Your task to perform on an android device: Open Google Chrome and click the shortcut for Amazon.com Image 0: 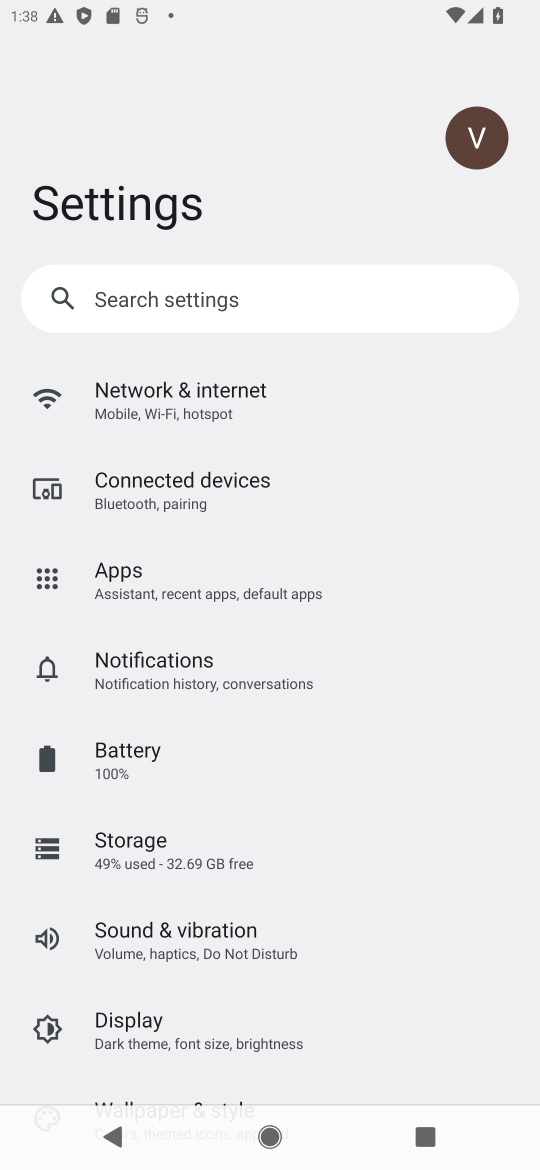
Step 0: press home button
Your task to perform on an android device: Open Google Chrome and click the shortcut for Amazon.com Image 1: 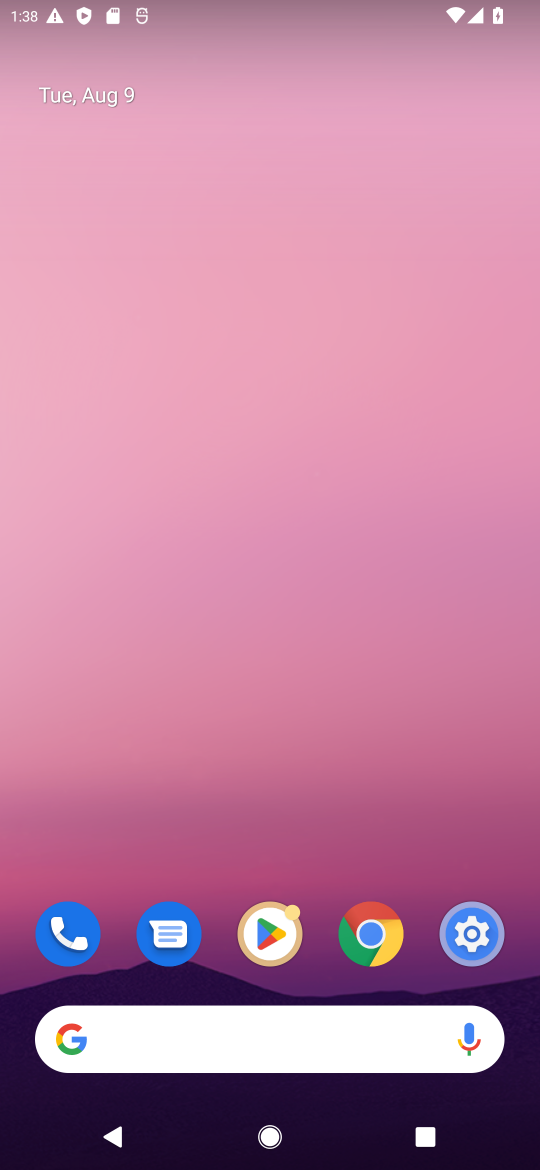
Step 1: click (394, 934)
Your task to perform on an android device: Open Google Chrome and click the shortcut for Amazon.com Image 2: 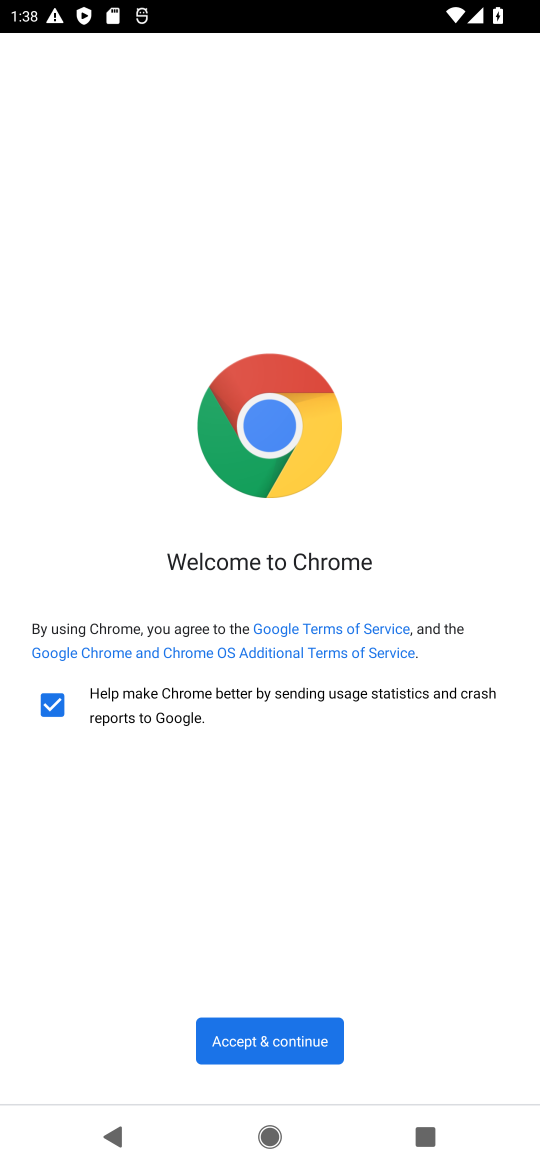
Step 2: click (325, 1038)
Your task to perform on an android device: Open Google Chrome and click the shortcut for Amazon.com Image 3: 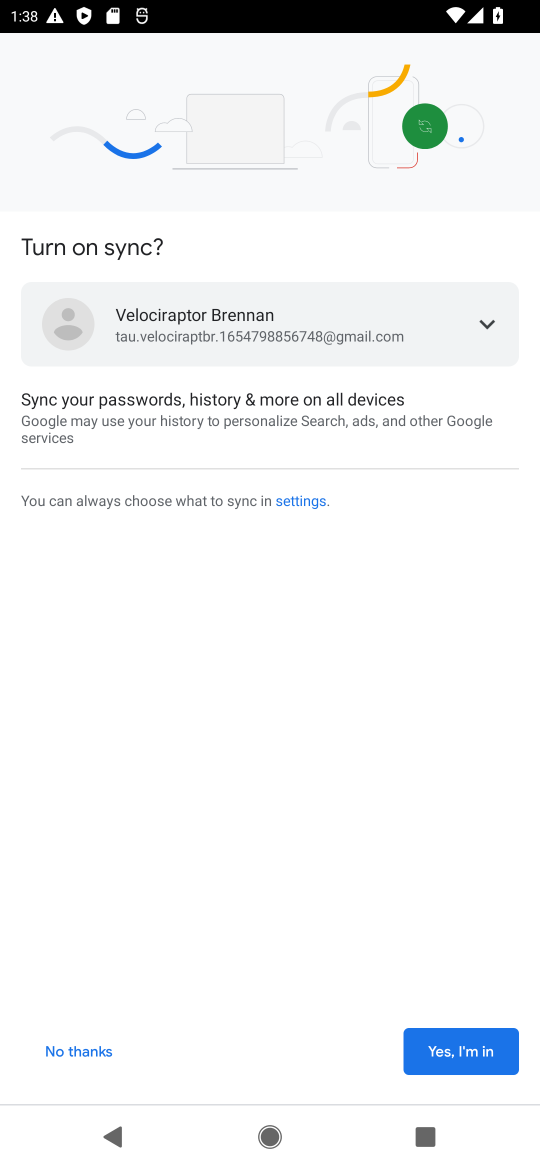
Step 3: click (476, 1044)
Your task to perform on an android device: Open Google Chrome and click the shortcut for Amazon.com Image 4: 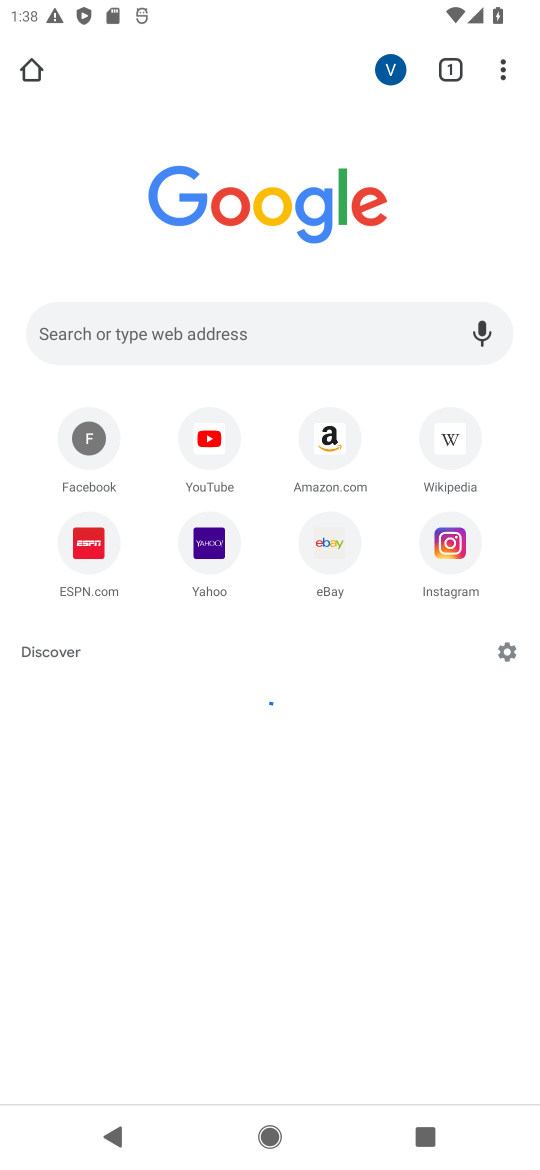
Step 4: click (336, 463)
Your task to perform on an android device: Open Google Chrome and click the shortcut for Amazon.com Image 5: 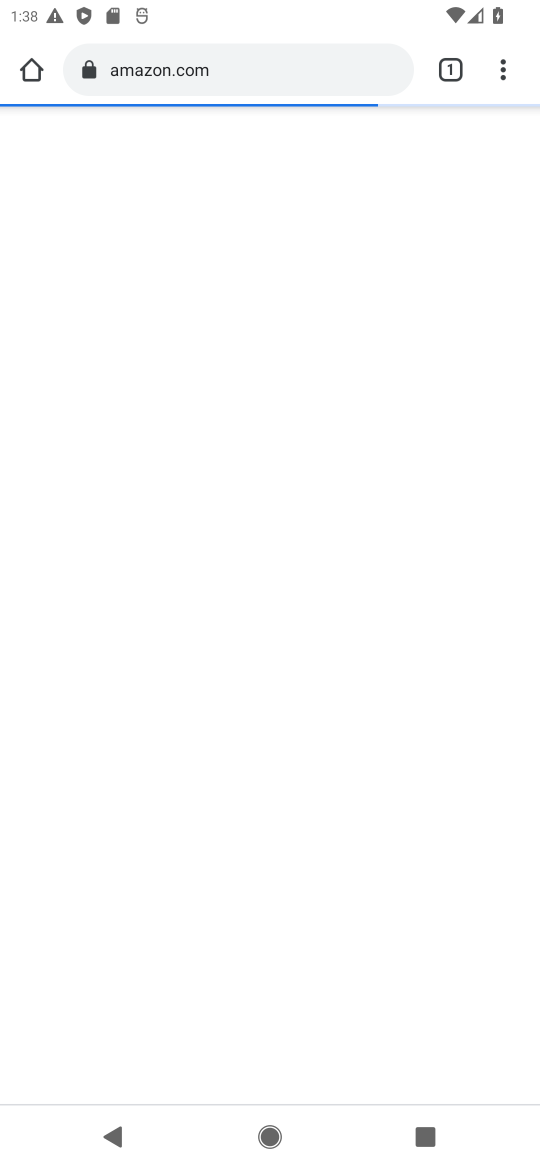
Step 5: task complete